Your task to perform on an android device: turn on translation in the chrome app Image 0: 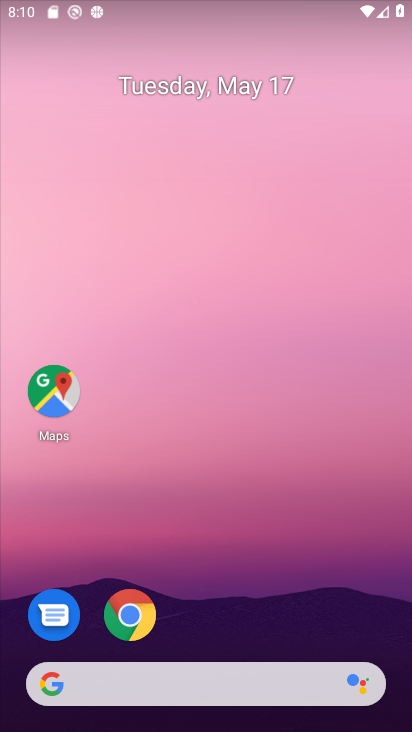
Step 0: click (136, 606)
Your task to perform on an android device: turn on translation in the chrome app Image 1: 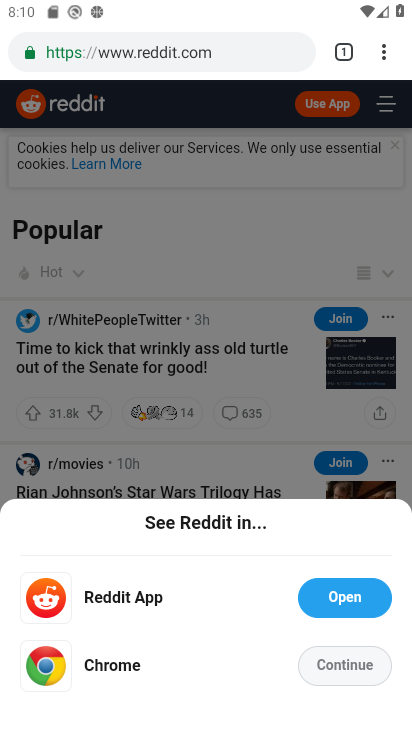
Step 1: drag from (381, 59) to (264, 579)
Your task to perform on an android device: turn on translation in the chrome app Image 2: 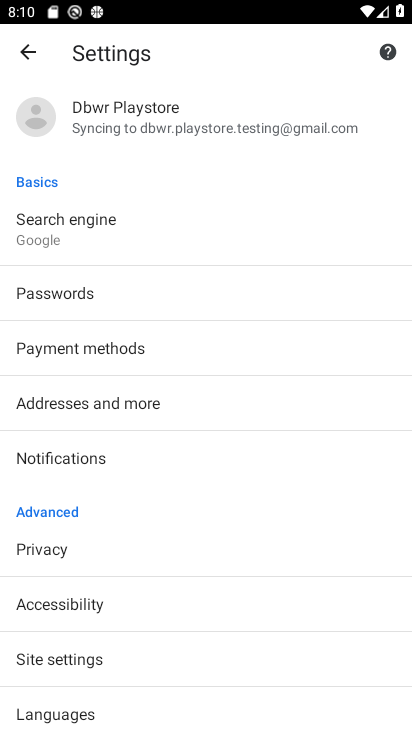
Step 2: click (90, 717)
Your task to perform on an android device: turn on translation in the chrome app Image 3: 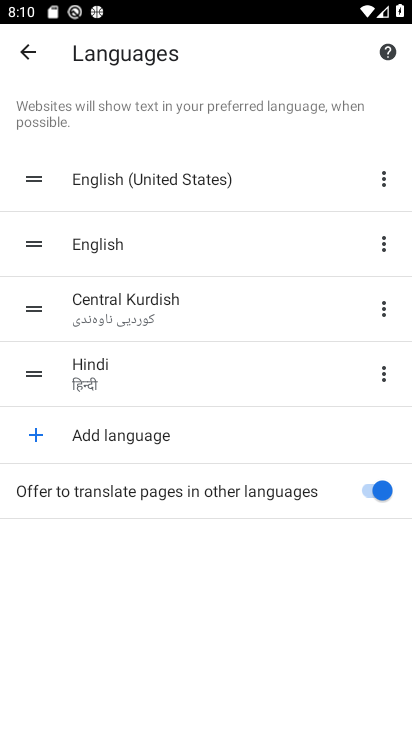
Step 3: task complete